Your task to perform on an android device: Do I have any events today? Image 0: 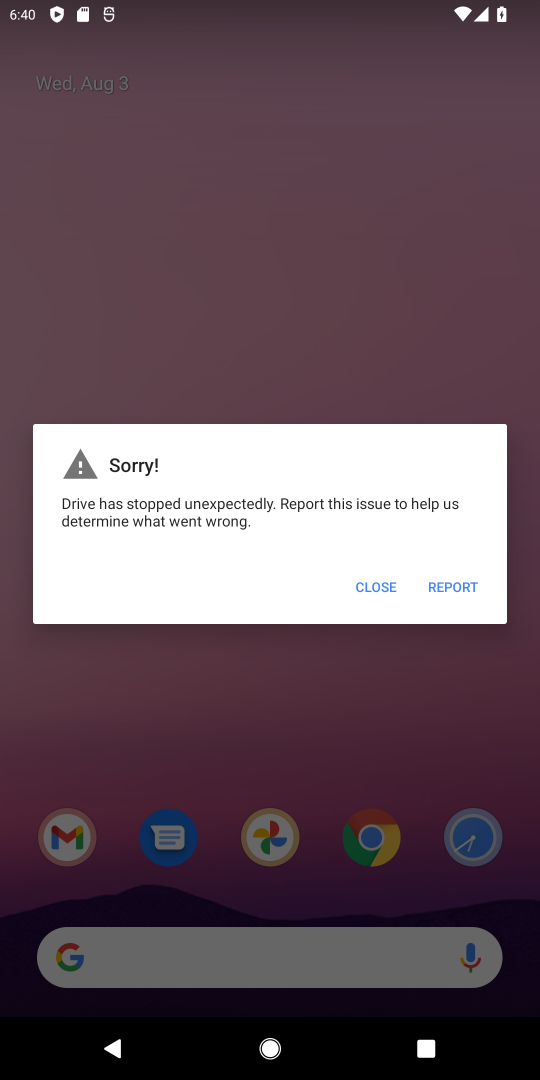
Step 0: press home button
Your task to perform on an android device: Do I have any events today? Image 1: 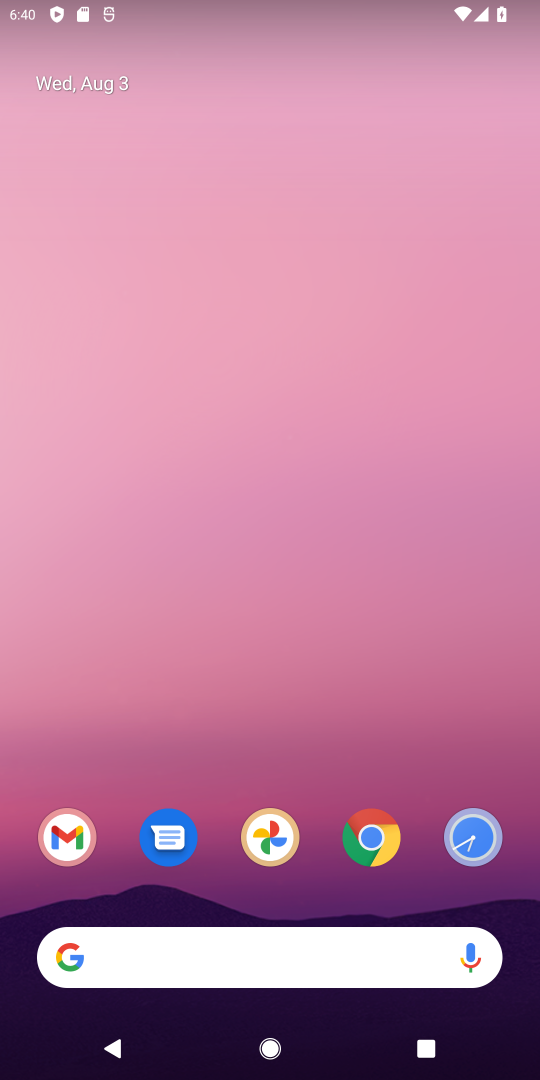
Step 1: drag from (297, 751) to (242, 11)
Your task to perform on an android device: Do I have any events today? Image 2: 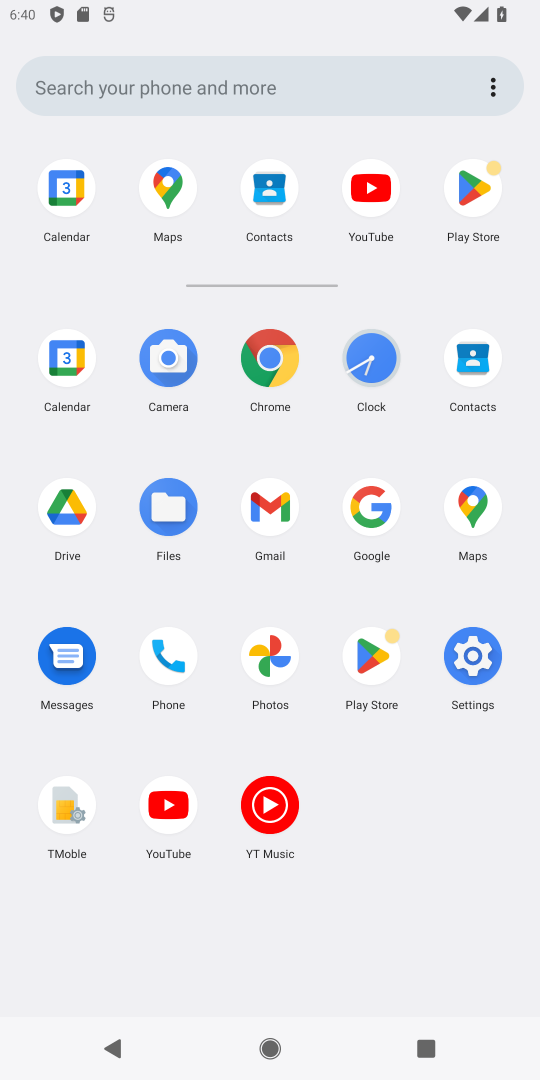
Step 2: click (52, 350)
Your task to perform on an android device: Do I have any events today? Image 3: 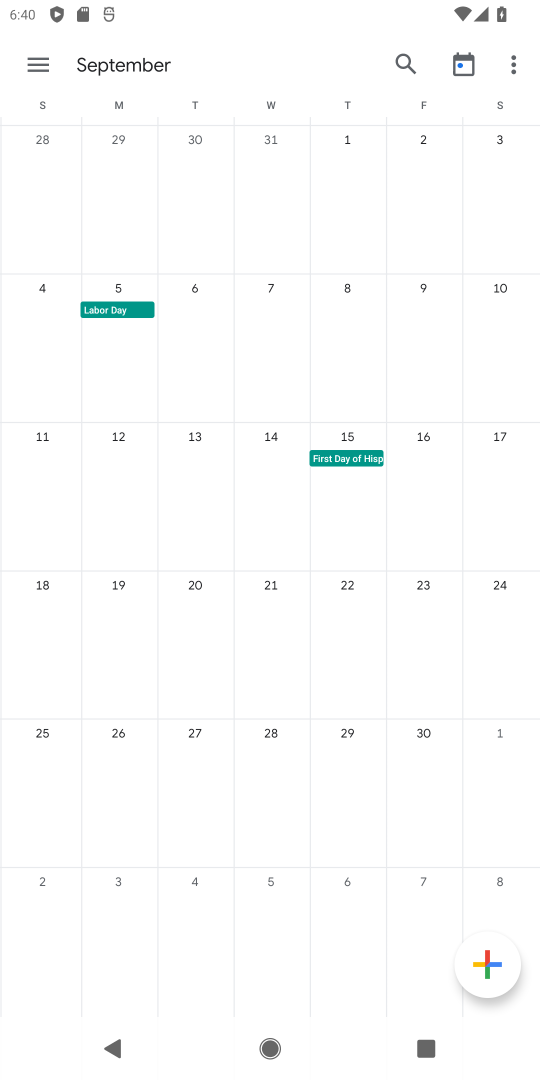
Step 3: drag from (54, 252) to (538, 279)
Your task to perform on an android device: Do I have any events today? Image 4: 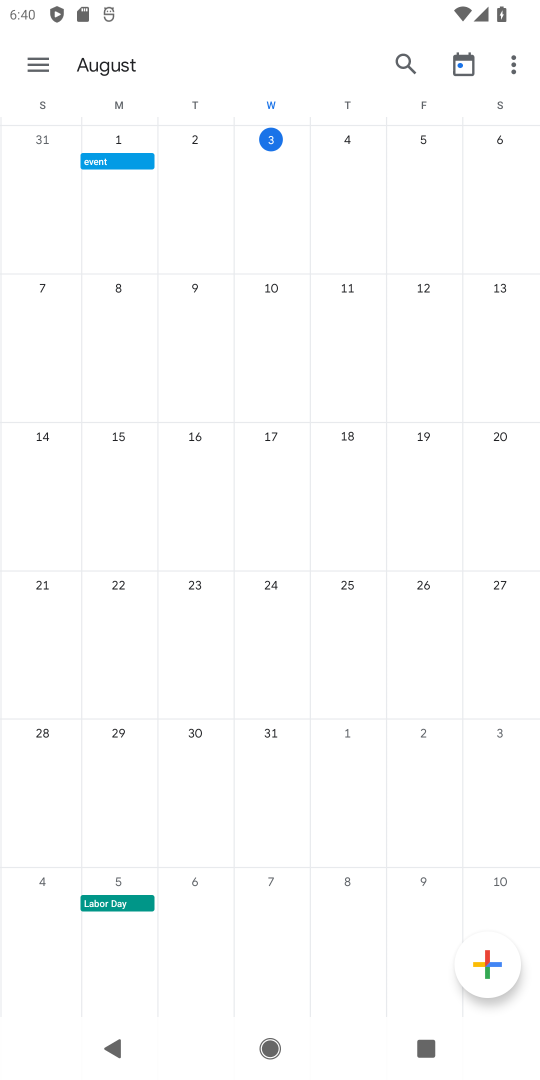
Step 4: click (277, 133)
Your task to perform on an android device: Do I have any events today? Image 5: 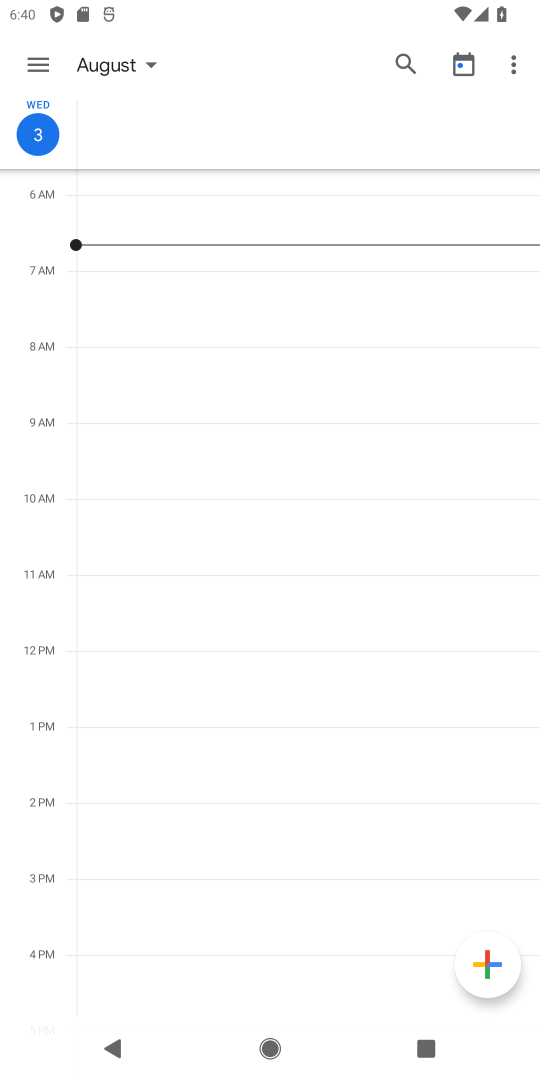
Step 5: task complete